Your task to perform on an android device: What's the weather? Image 0: 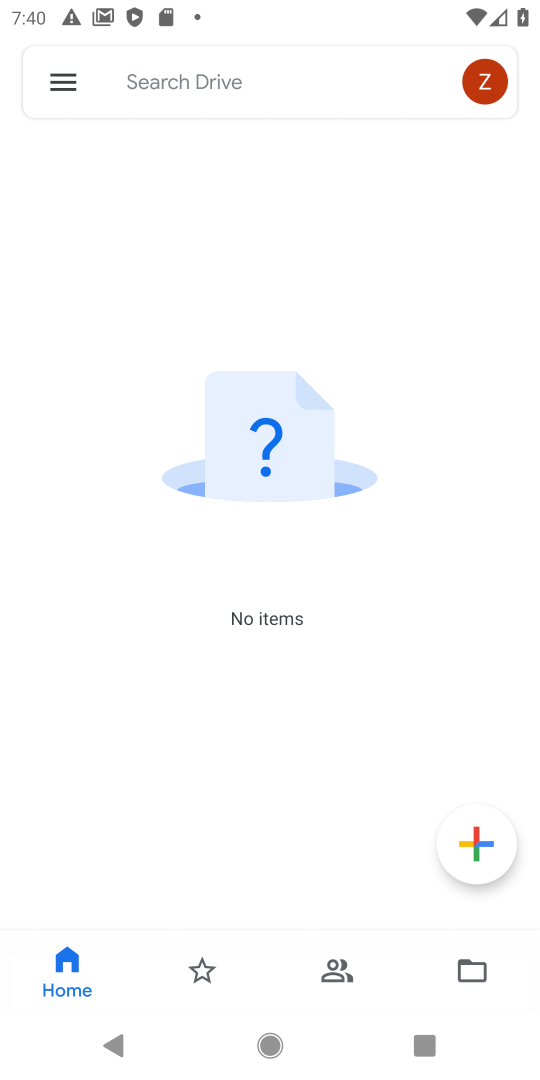
Step 0: click (274, 1044)
Your task to perform on an android device: What's the weather? Image 1: 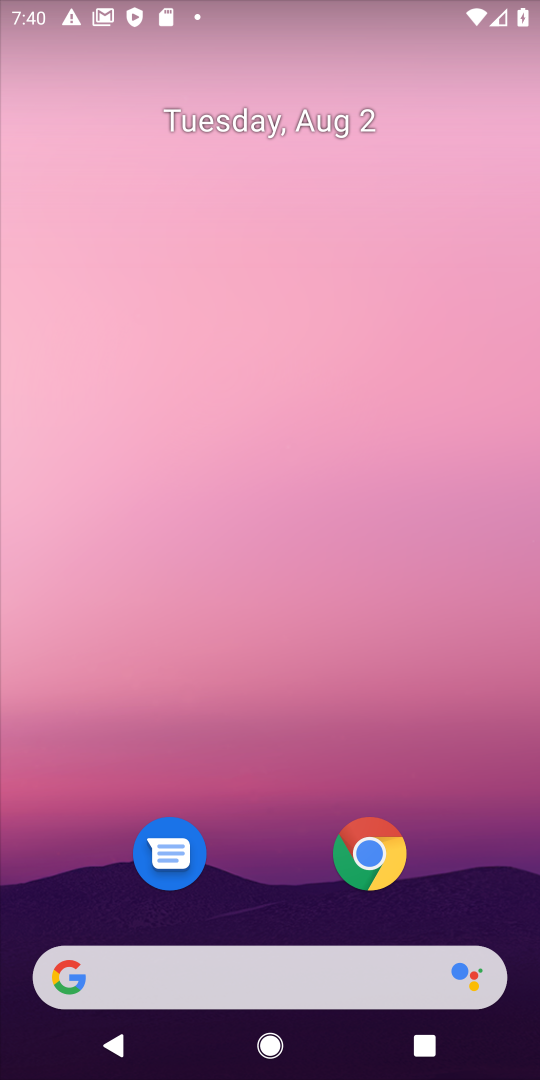
Step 1: click (226, 980)
Your task to perform on an android device: What's the weather? Image 2: 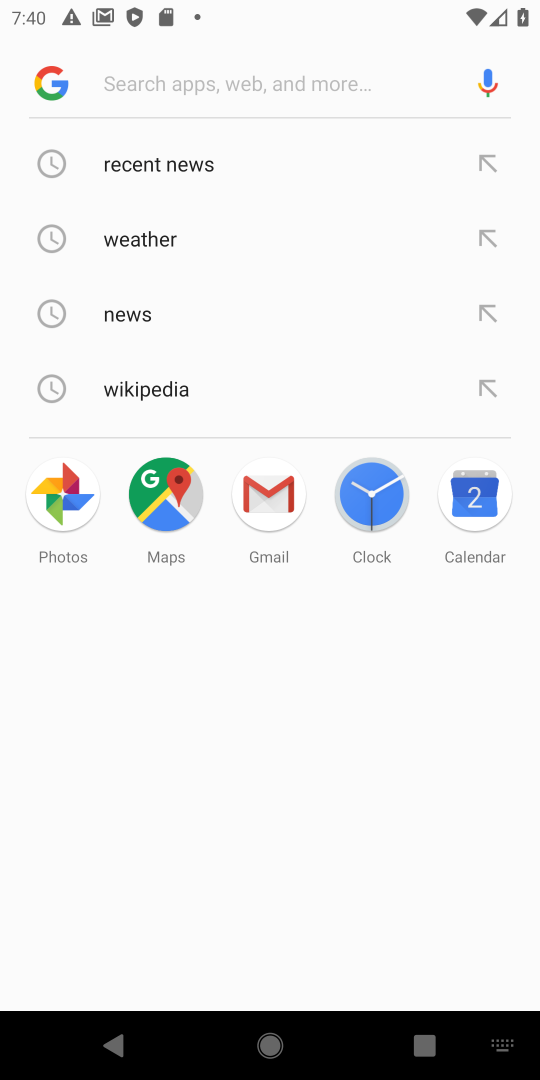
Step 2: type "what's the weather?"
Your task to perform on an android device: What's the weather? Image 3: 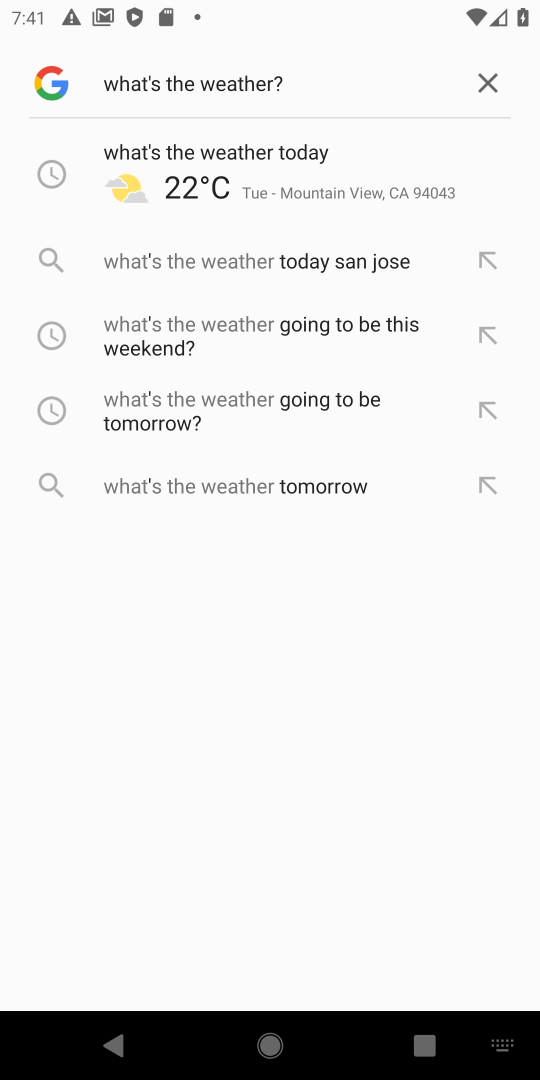
Step 3: click (312, 181)
Your task to perform on an android device: What's the weather? Image 4: 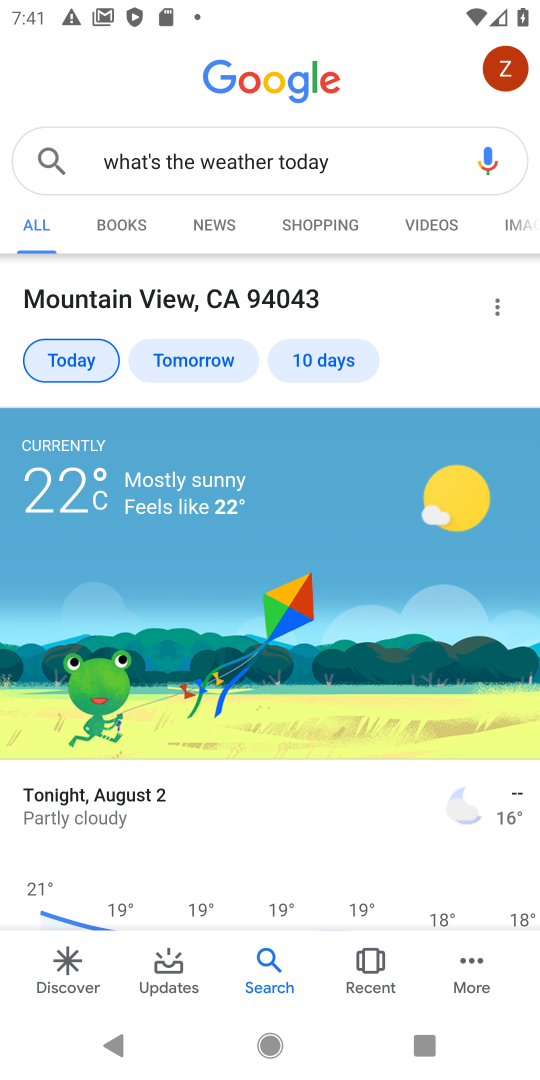
Step 4: task complete